Your task to perform on an android device: Go to battery settings Image 0: 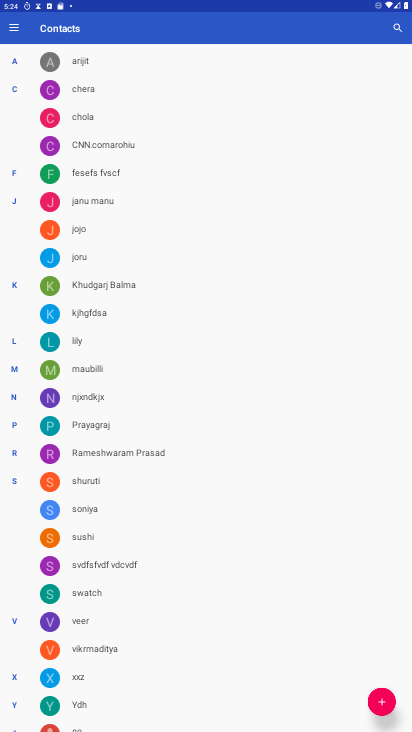
Step 0: press home button
Your task to perform on an android device: Go to battery settings Image 1: 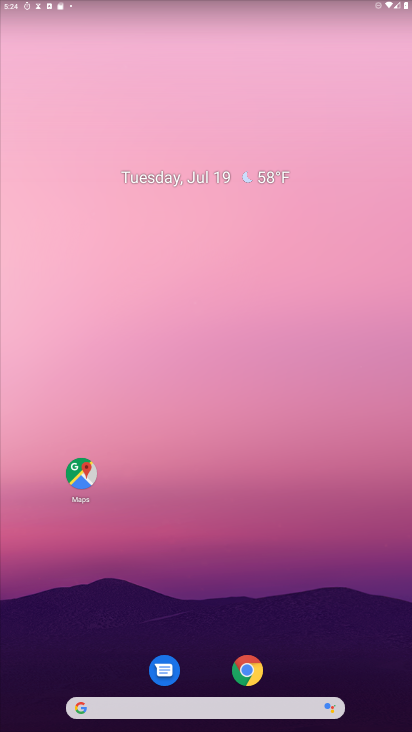
Step 1: drag from (312, 701) to (362, 71)
Your task to perform on an android device: Go to battery settings Image 2: 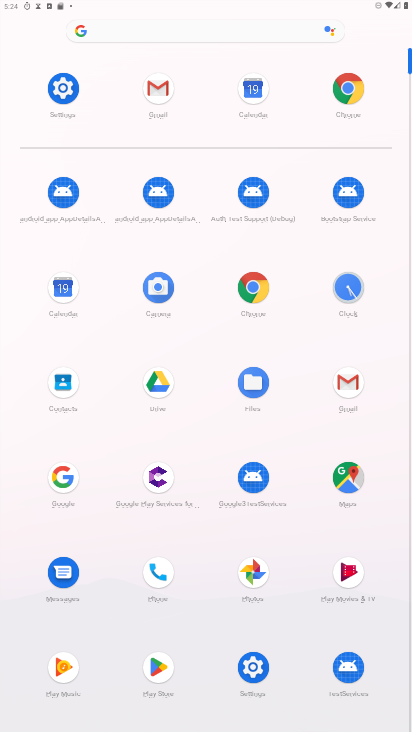
Step 2: click (62, 86)
Your task to perform on an android device: Go to battery settings Image 3: 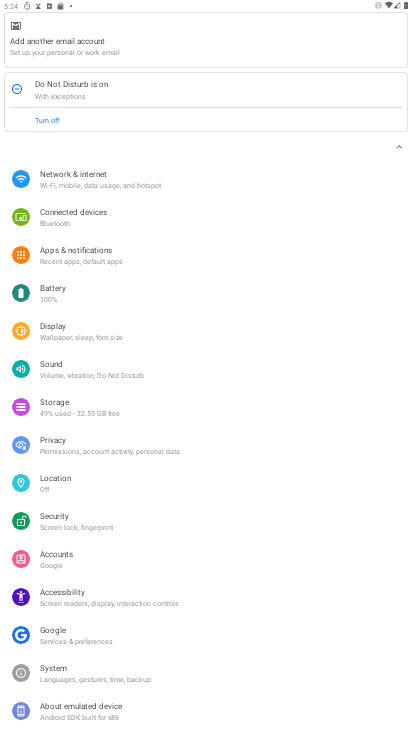
Step 3: click (76, 297)
Your task to perform on an android device: Go to battery settings Image 4: 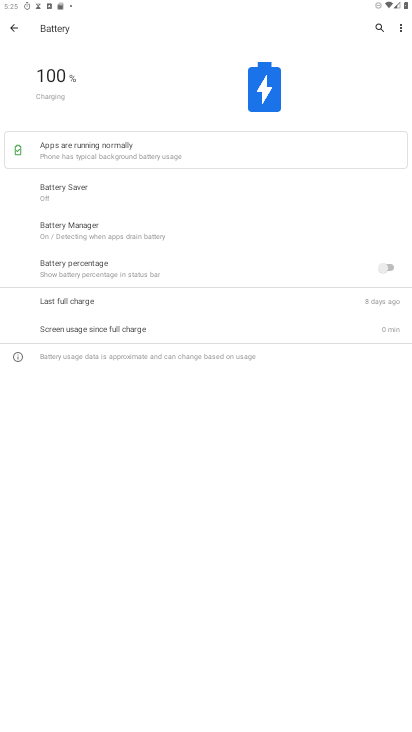
Step 4: task complete